Your task to perform on an android device: Clear the shopping cart on costco. Add "rayovac triple a" to the cart on costco, then select checkout. Image 0: 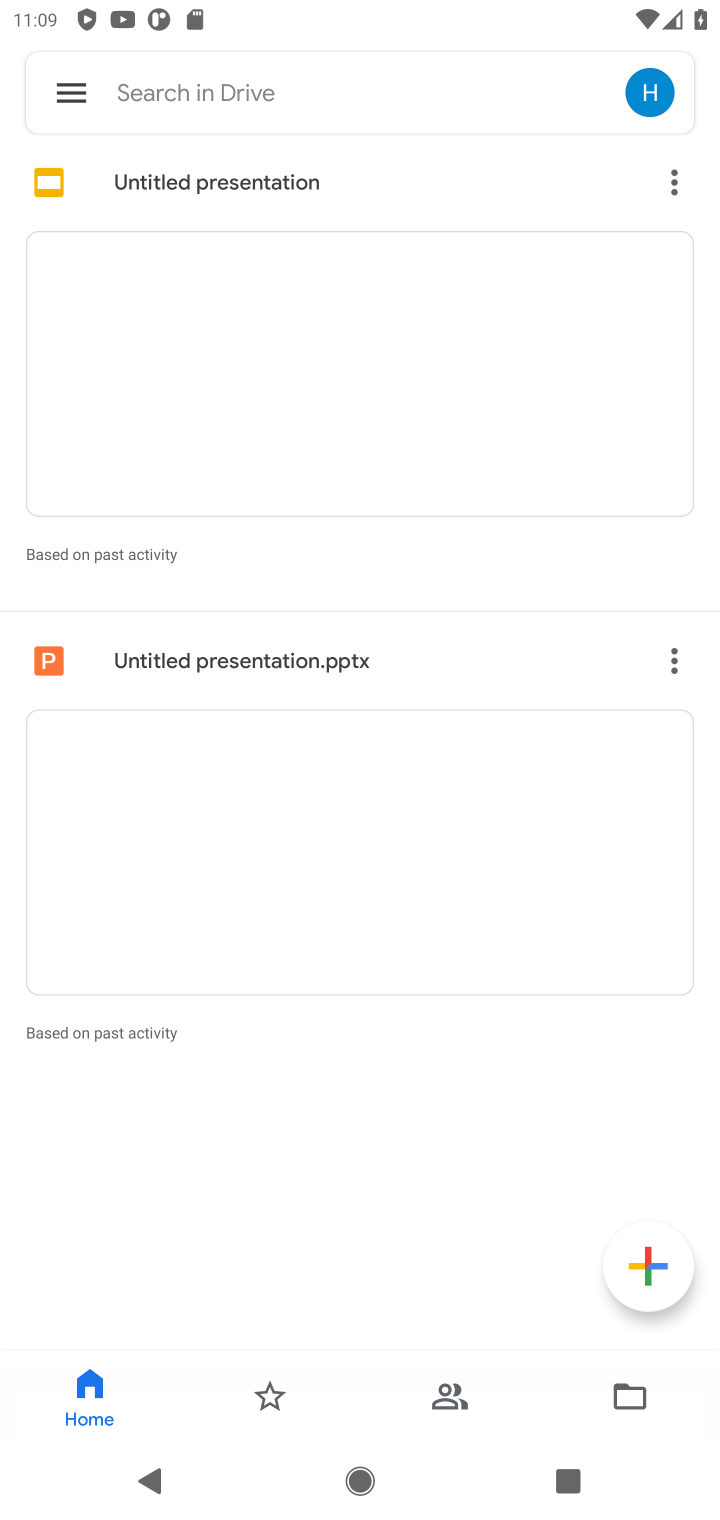
Step 0: press home button
Your task to perform on an android device: Clear the shopping cart on costco. Add "rayovac triple a" to the cart on costco, then select checkout. Image 1: 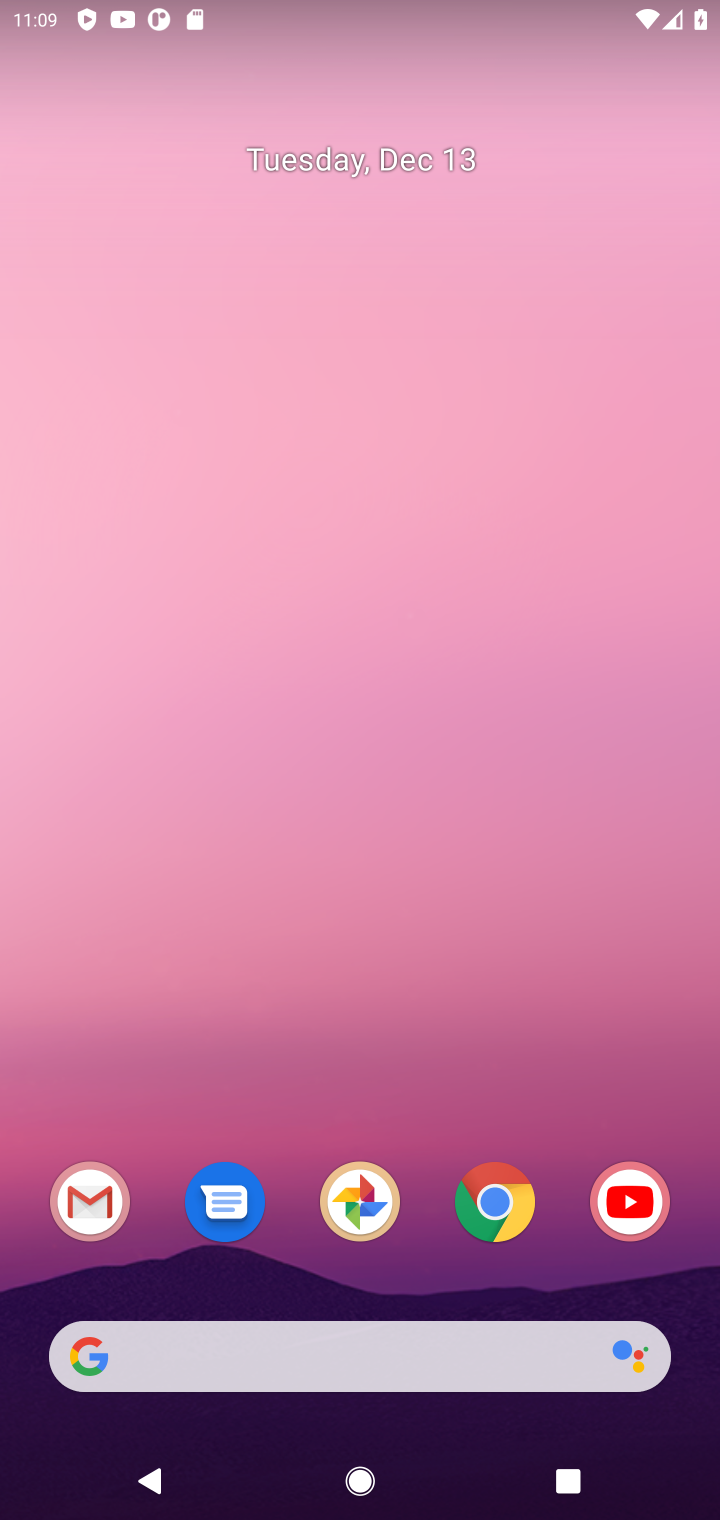
Step 1: click (477, 1180)
Your task to perform on an android device: Clear the shopping cart on costco. Add "rayovac triple a" to the cart on costco, then select checkout. Image 2: 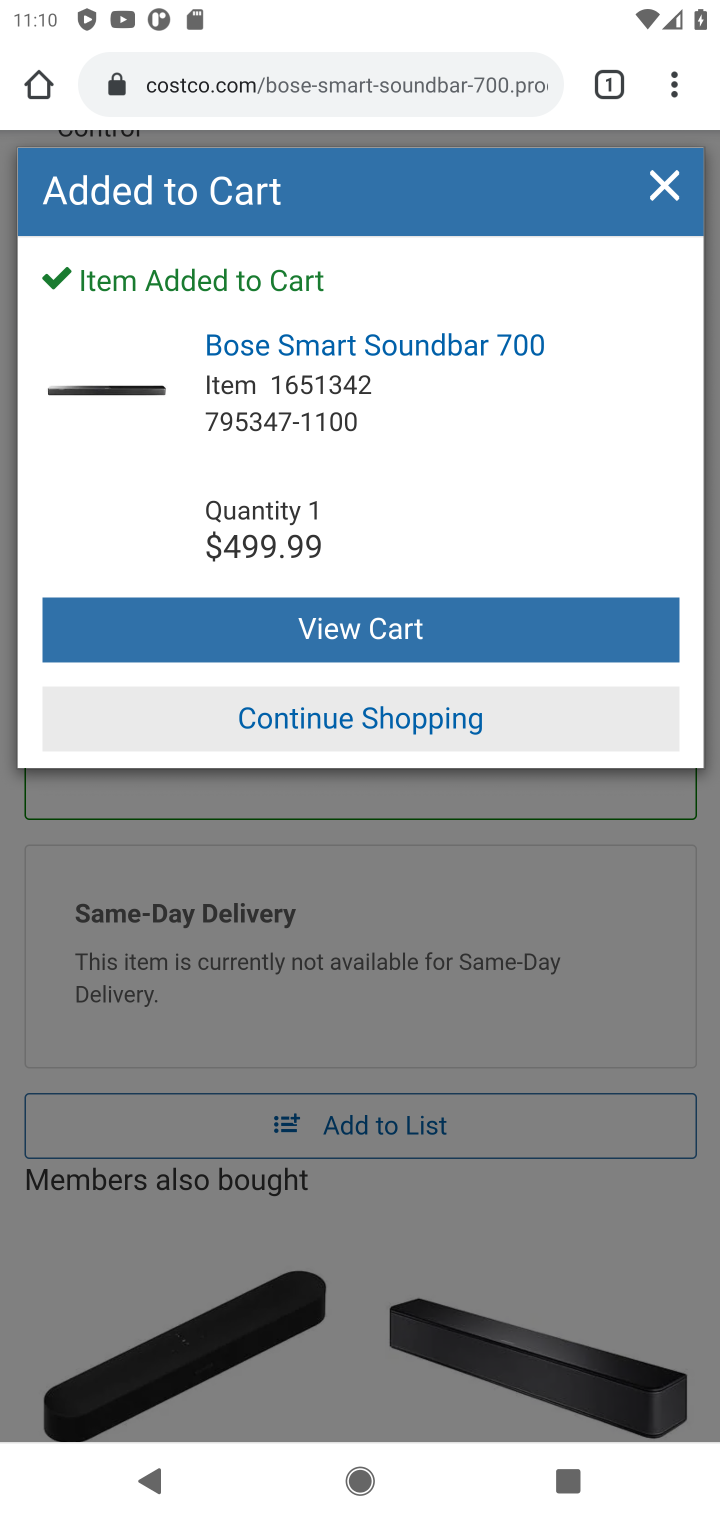
Step 2: click (393, 632)
Your task to perform on an android device: Clear the shopping cart on costco. Add "rayovac triple a" to the cart on costco, then select checkout. Image 3: 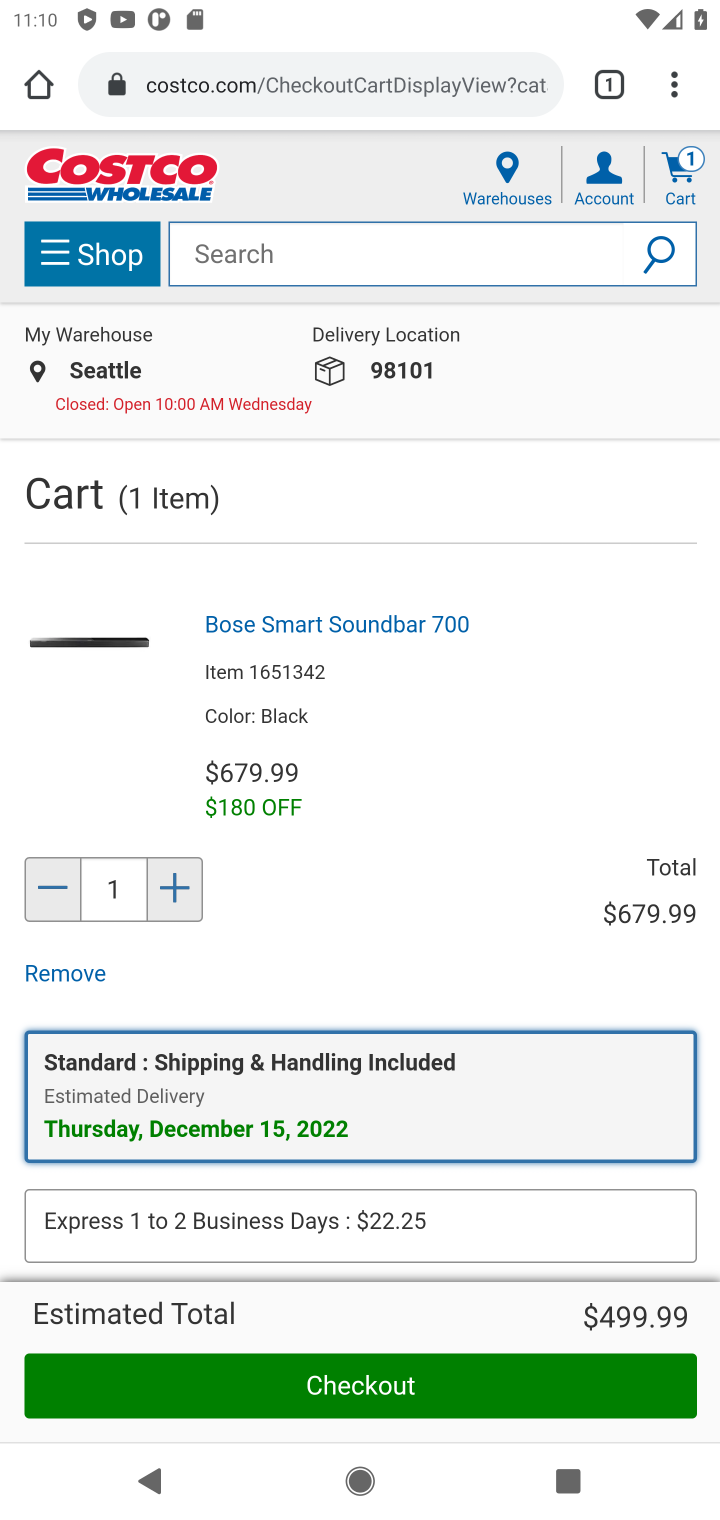
Step 3: click (65, 971)
Your task to perform on an android device: Clear the shopping cart on costco. Add "rayovac triple a" to the cart on costco, then select checkout. Image 4: 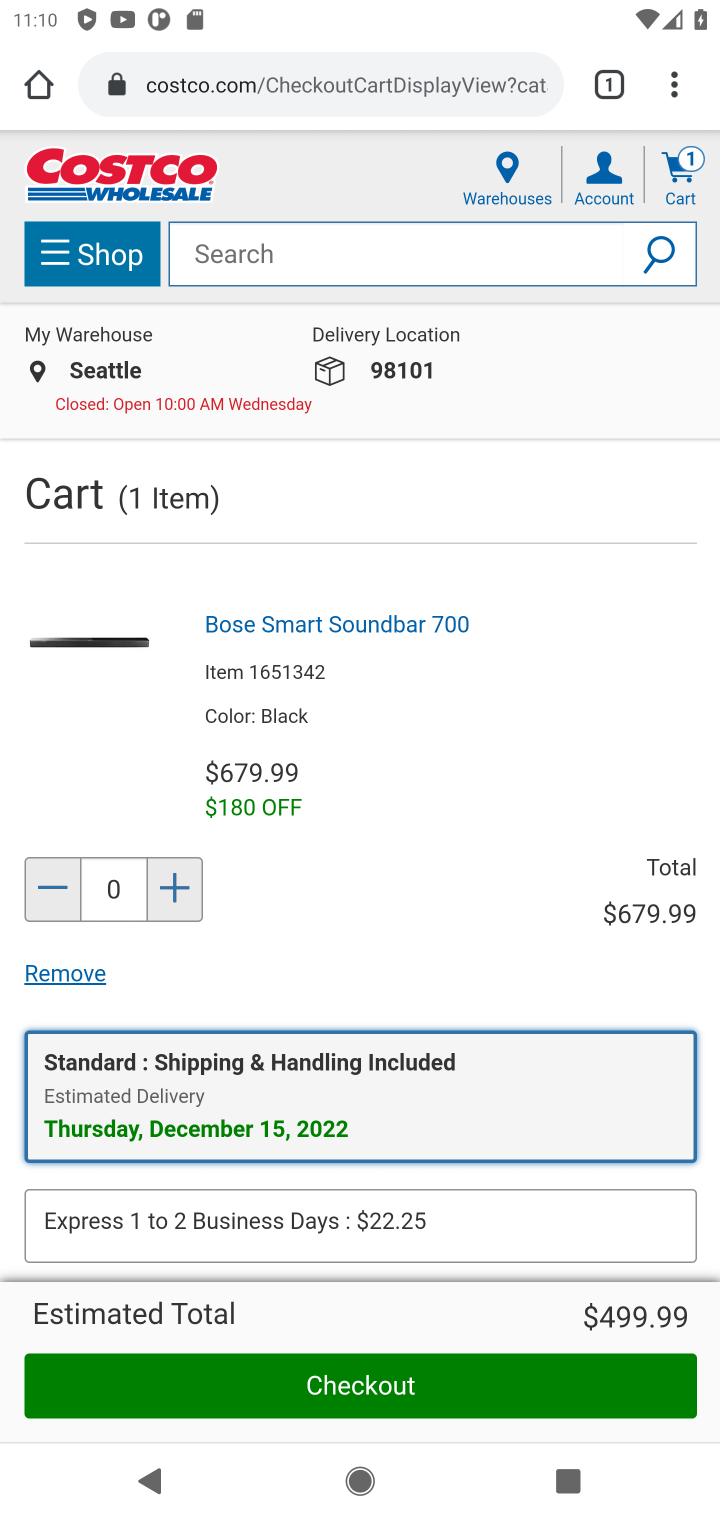
Step 4: task complete